Your task to perform on an android device: turn off smart reply in the gmail app Image 0: 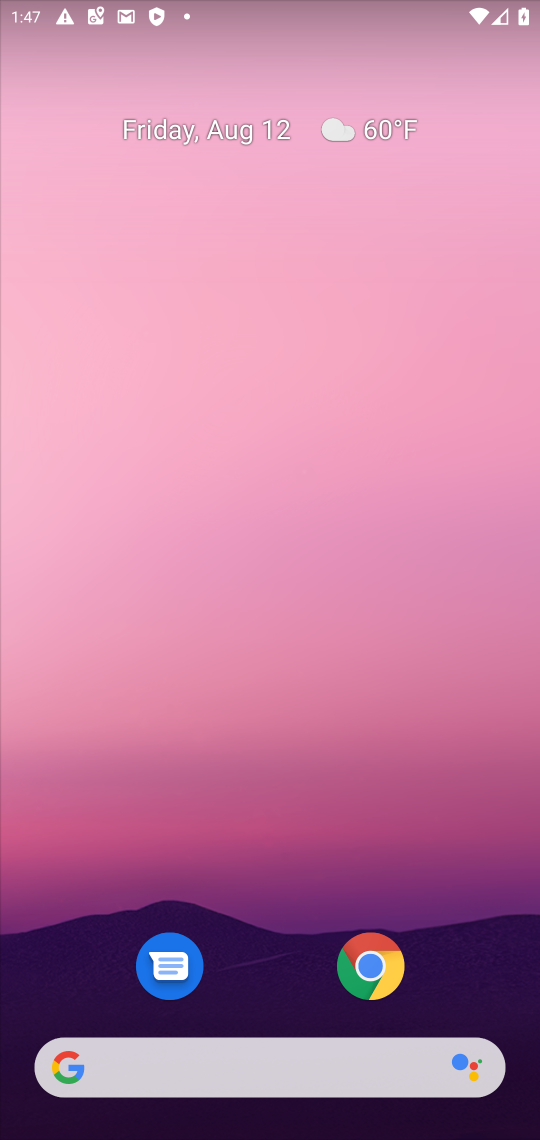
Step 0: drag from (440, 699) to (503, 75)
Your task to perform on an android device: turn off smart reply in the gmail app Image 1: 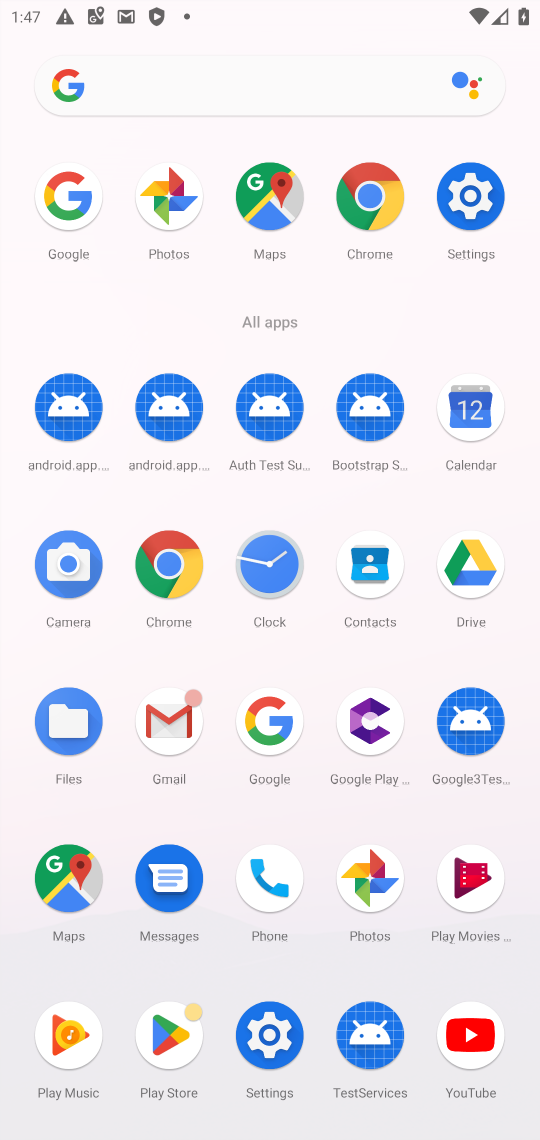
Step 1: click (157, 714)
Your task to perform on an android device: turn off smart reply in the gmail app Image 2: 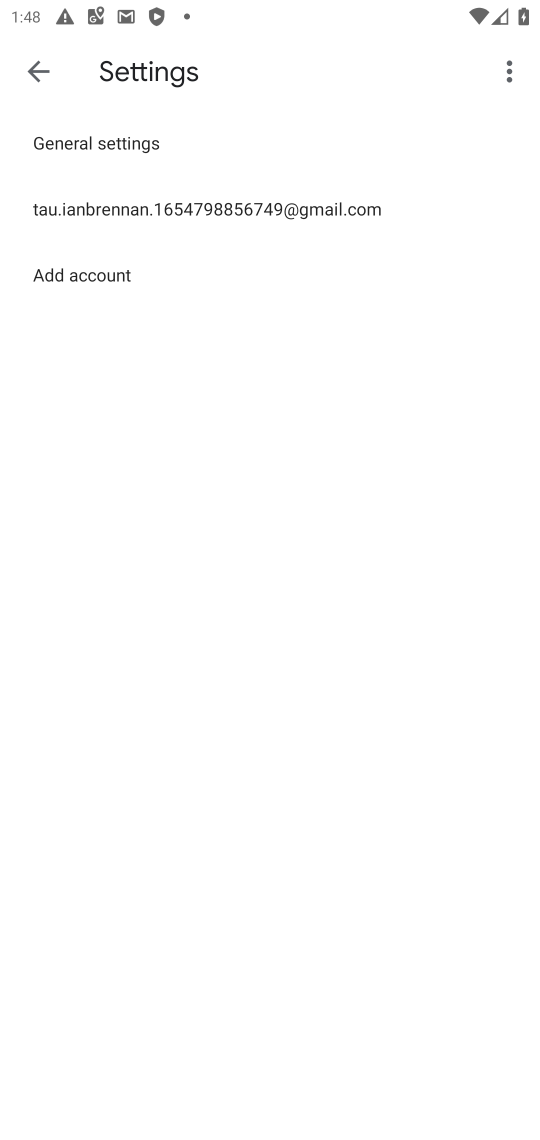
Step 2: click (94, 215)
Your task to perform on an android device: turn off smart reply in the gmail app Image 3: 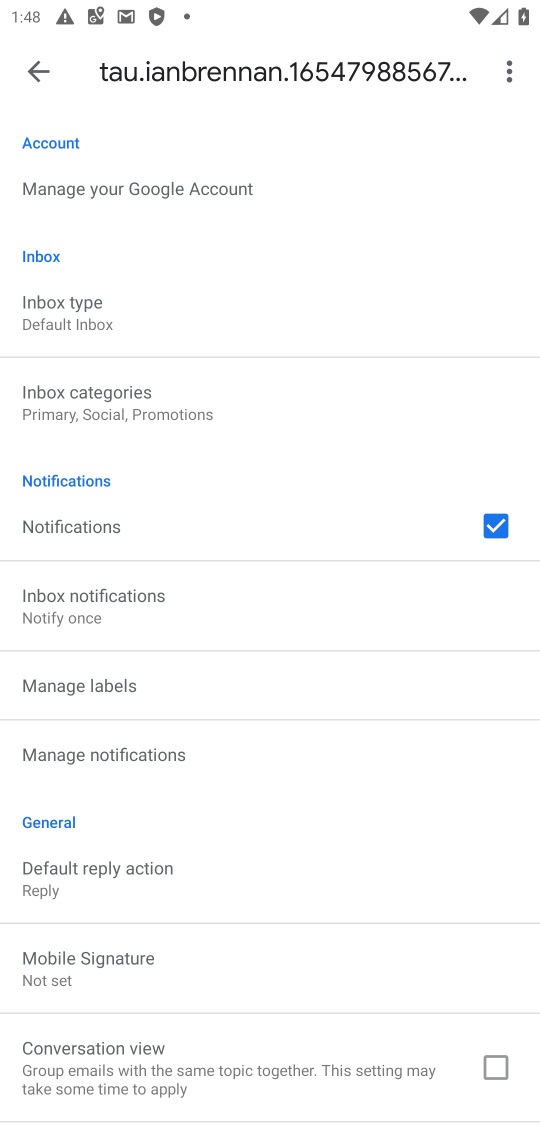
Step 3: drag from (223, 266) to (244, 859)
Your task to perform on an android device: turn off smart reply in the gmail app Image 4: 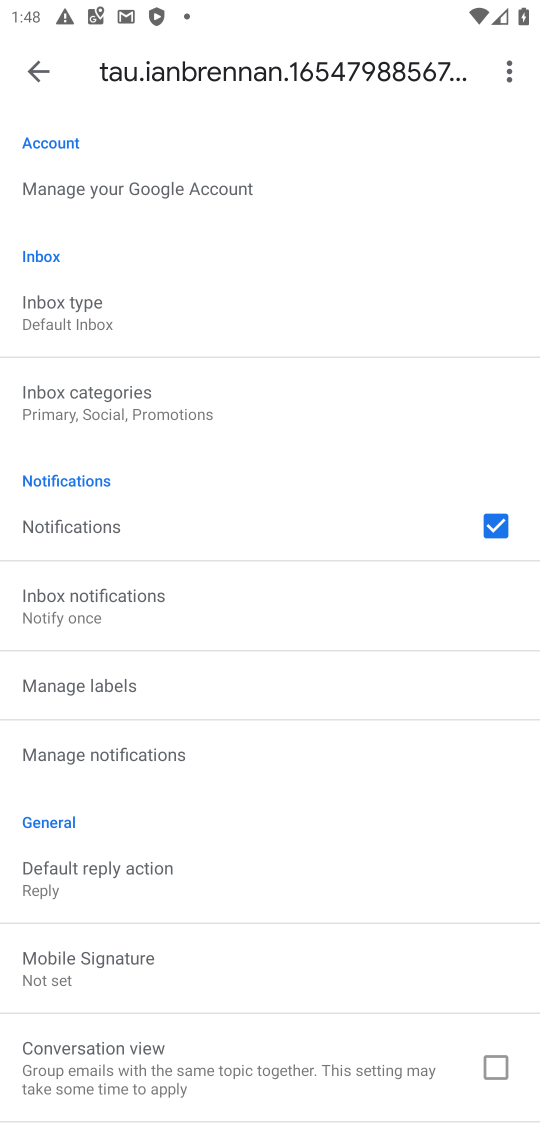
Step 4: drag from (286, 846) to (325, 97)
Your task to perform on an android device: turn off smart reply in the gmail app Image 5: 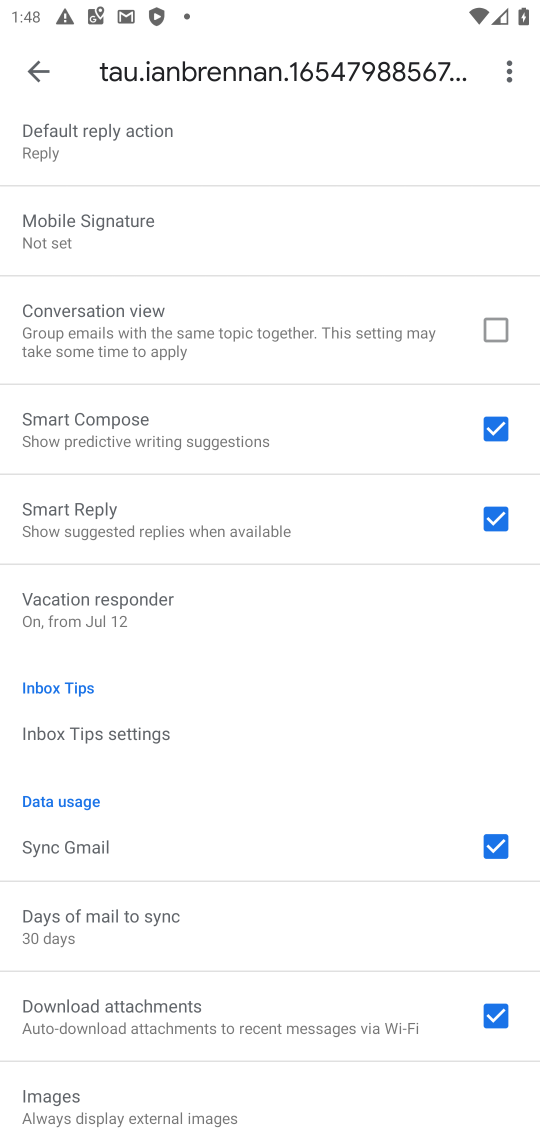
Step 5: click (493, 512)
Your task to perform on an android device: turn off smart reply in the gmail app Image 6: 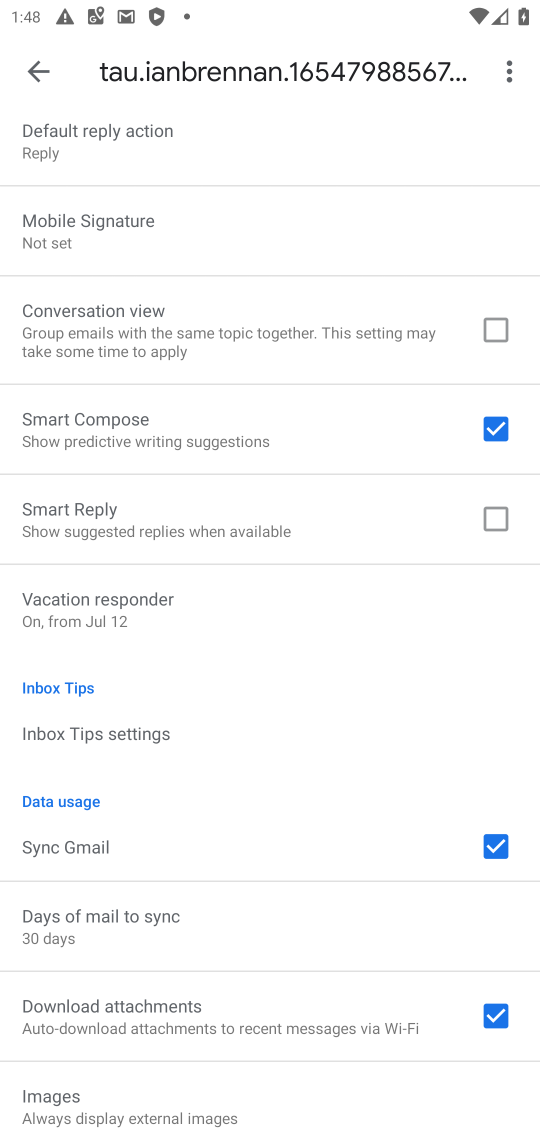
Step 6: task complete